Your task to perform on an android device: turn on wifi Image 0: 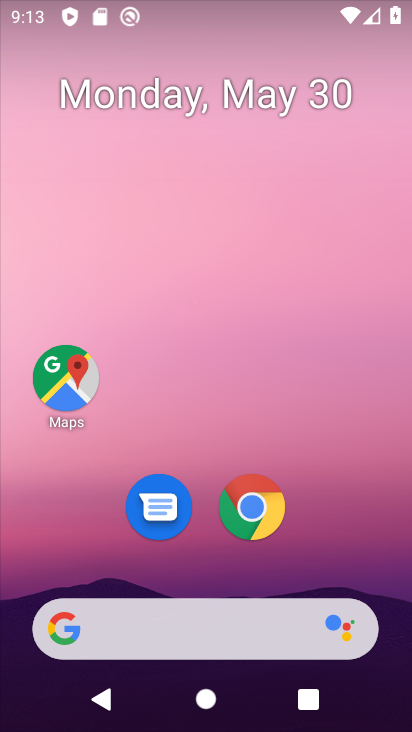
Step 0: drag from (292, 529) to (355, 267)
Your task to perform on an android device: turn on wifi Image 1: 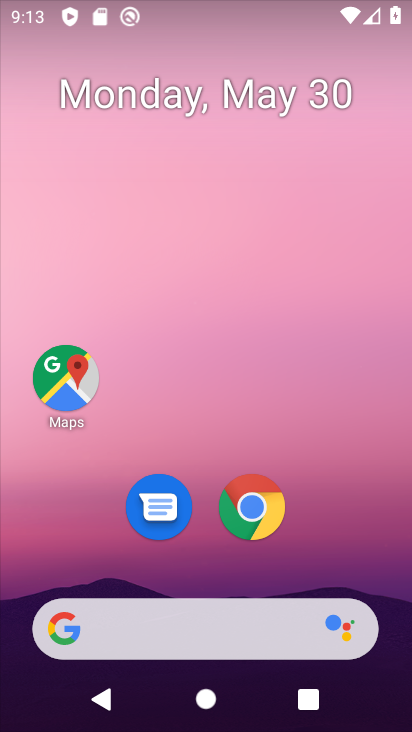
Step 1: drag from (323, 503) to (377, 164)
Your task to perform on an android device: turn on wifi Image 2: 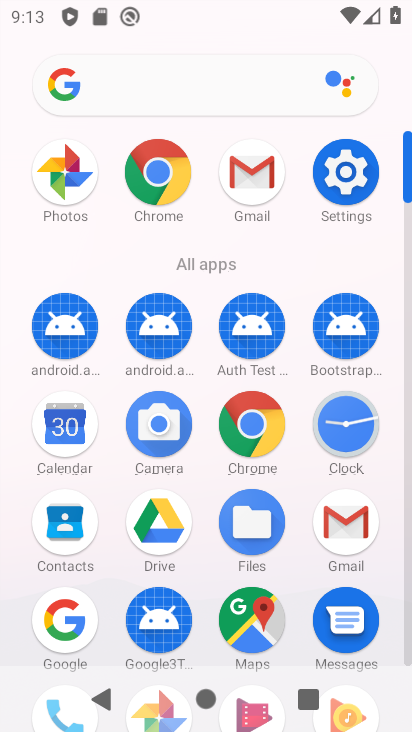
Step 2: click (355, 181)
Your task to perform on an android device: turn on wifi Image 3: 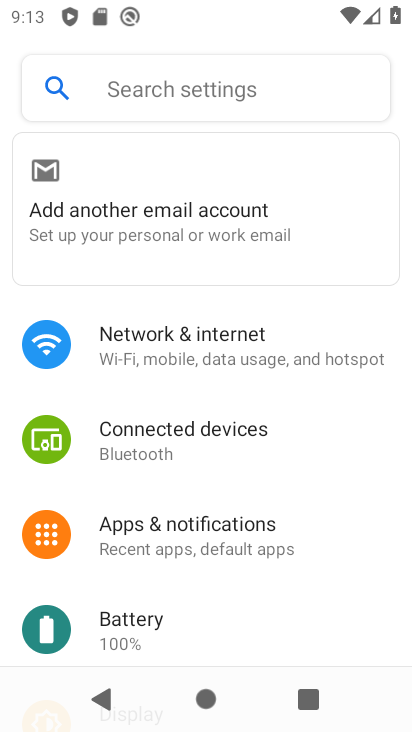
Step 3: click (187, 342)
Your task to perform on an android device: turn on wifi Image 4: 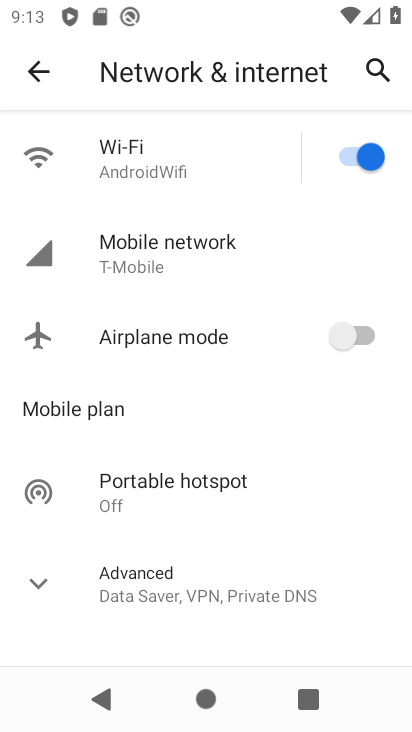
Step 4: task complete